Your task to perform on an android device: set the stopwatch Image 0: 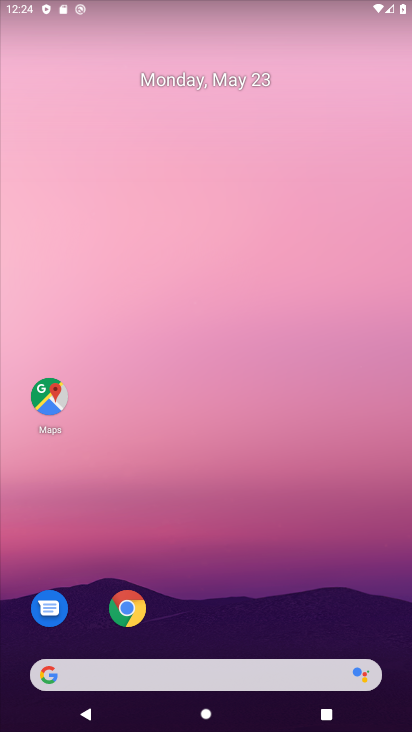
Step 0: drag from (352, 595) to (295, 183)
Your task to perform on an android device: set the stopwatch Image 1: 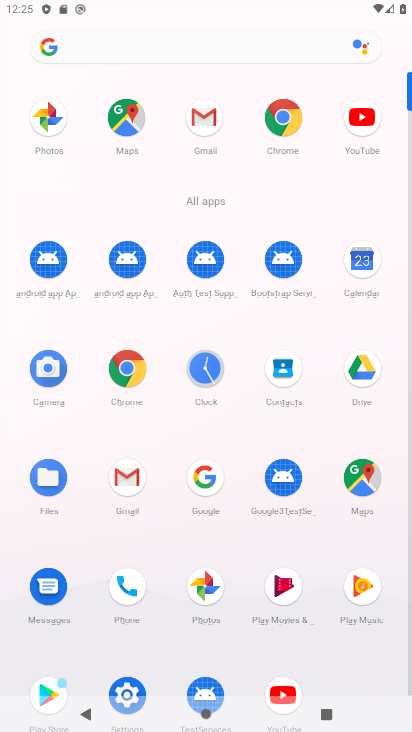
Step 1: click (210, 383)
Your task to perform on an android device: set the stopwatch Image 2: 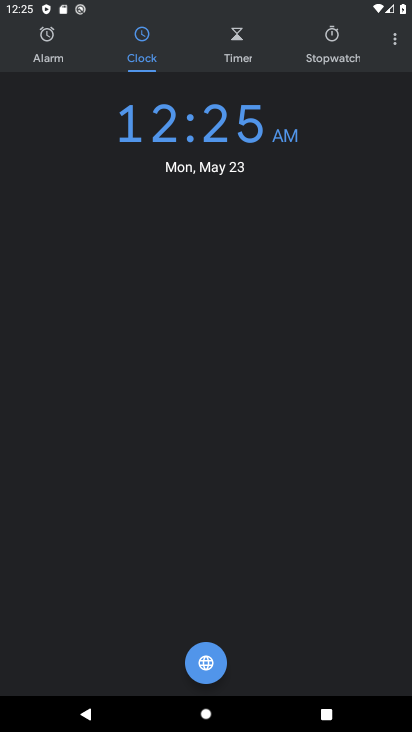
Step 2: click (334, 28)
Your task to perform on an android device: set the stopwatch Image 3: 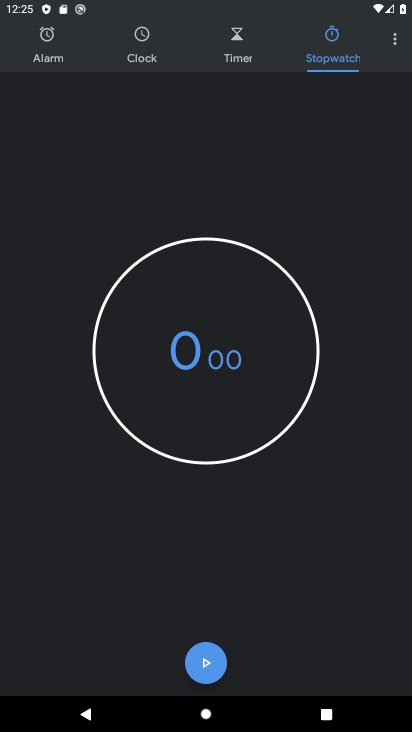
Step 3: click (209, 657)
Your task to perform on an android device: set the stopwatch Image 4: 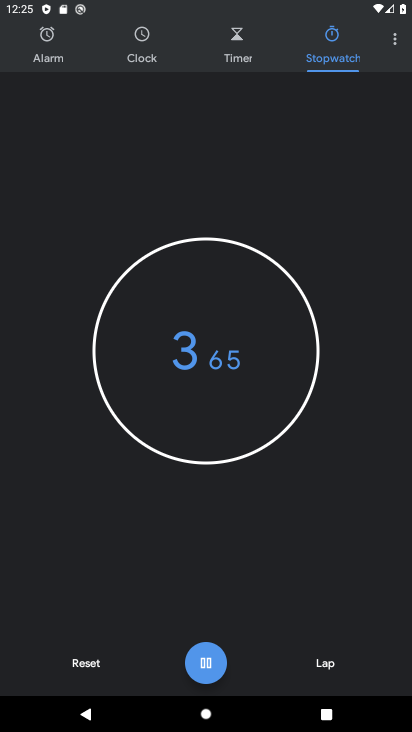
Step 4: click (209, 654)
Your task to perform on an android device: set the stopwatch Image 5: 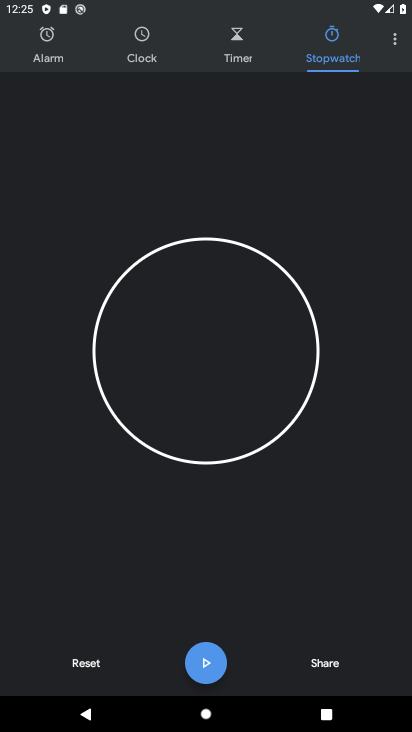
Step 5: task complete